Your task to perform on an android device: open chrome privacy settings Image 0: 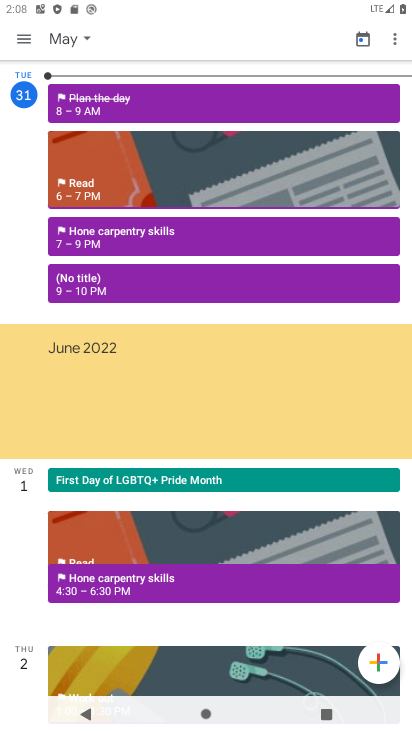
Step 0: press home button
Your task to perform on an android device: open chrome privacy settings Image 1: 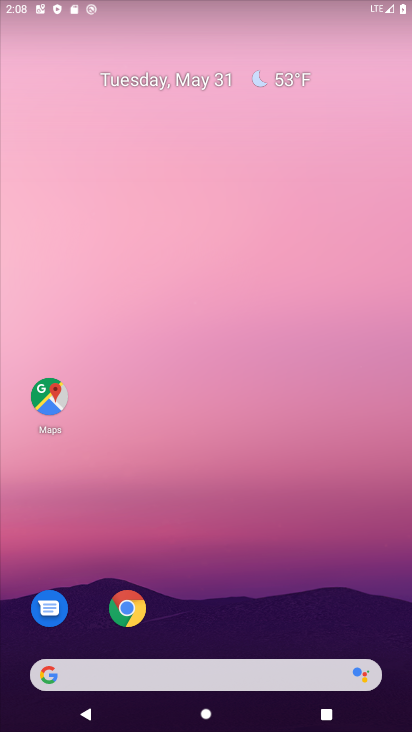
Step 1: drag from (267, 496) to (309, 82)
Your task to perform on an android device: open chrome privacy settings Image 2: 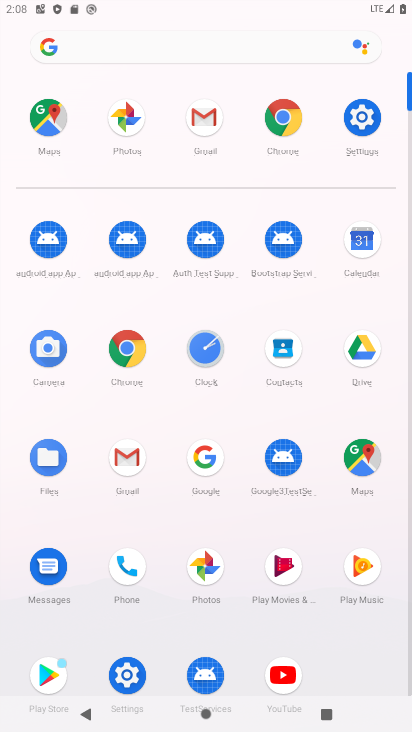
Step 2: click (287, 116)
Your task to perform on an android device: open chrome privacy settings Image 3: 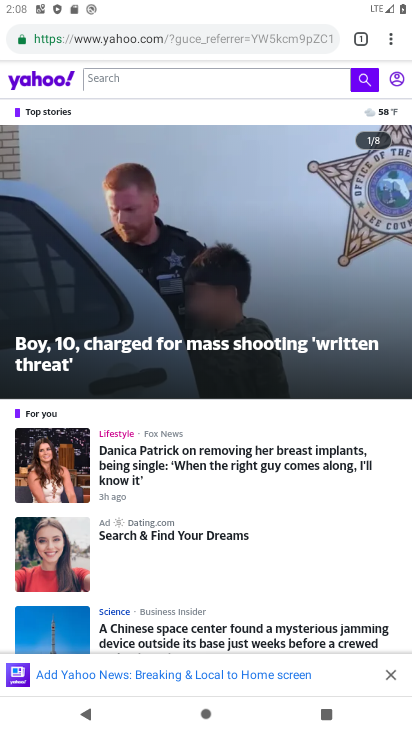
Step 3: drag from (385, 38) to (295, 509)
Your task to perform on an android device: open chrome privacy settings Image 4: 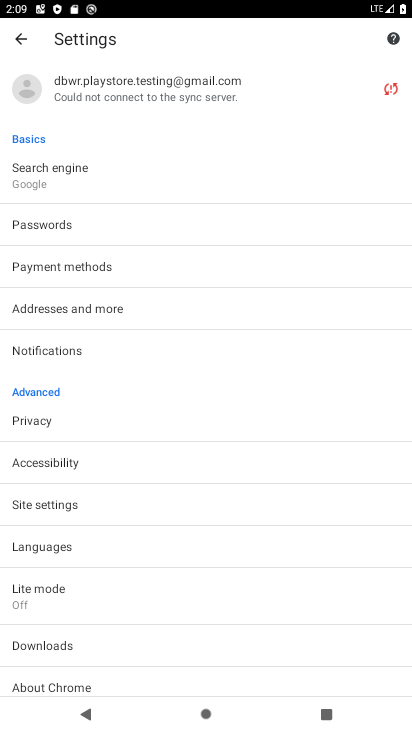
Step 4: click (81, 417)
Your task to perform on an android device: open chrome privacy settings Image 5: 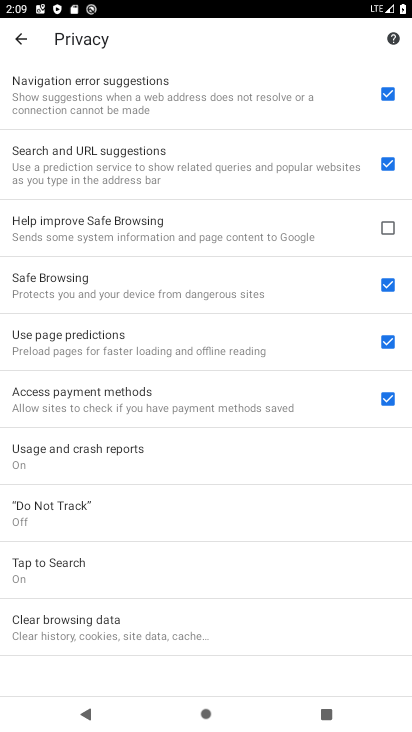
Step 5: task complete